Your task to perform on an android device: Open the Play Movies app and select the watchlist tab. Image 0: 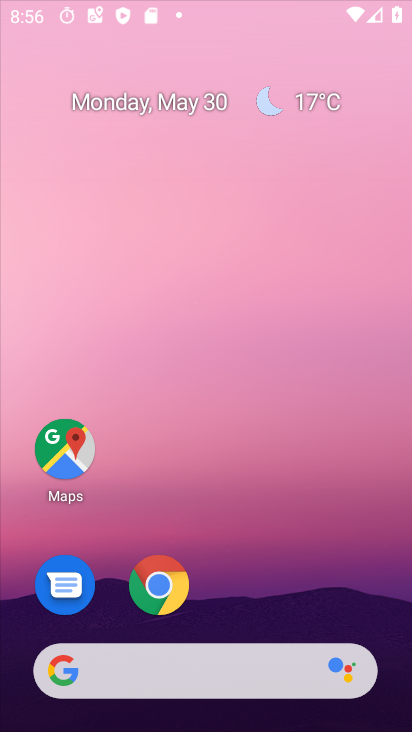
Step 0: click (214, 150)
Your task to perform on an android device: Open the Play Movies app and select the watchlist tab. Image 1: 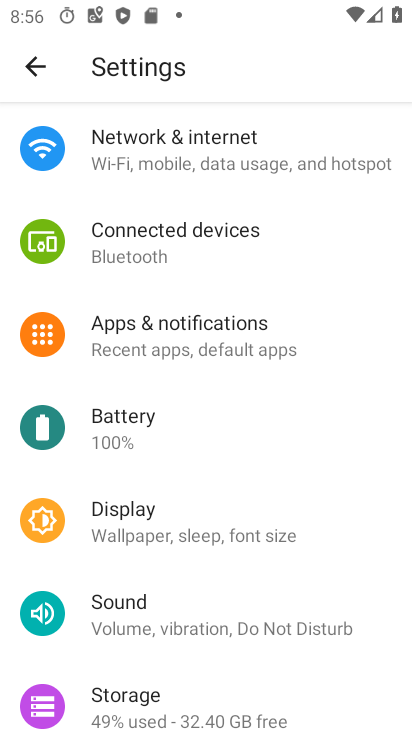
Step 1: press home button
Your task to perform on an android device: Open the Play Movies app and select the watchlist tab. Image 2: 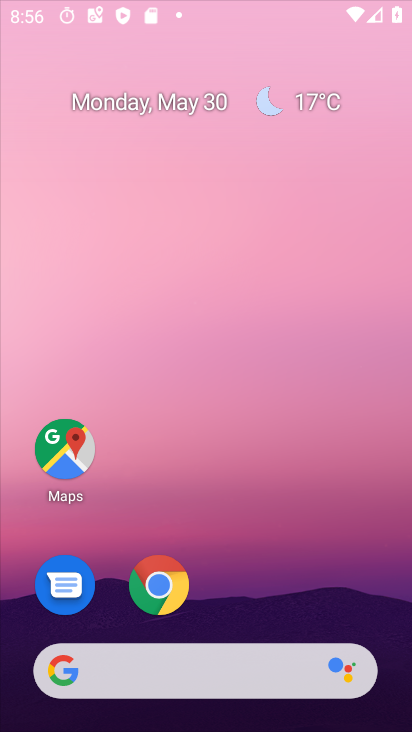
Step 2: drag from (257, 189) to (263, 155)
Your task to perform on an android device: Open the Play Movies app and select the watchlist tab. Image 3: 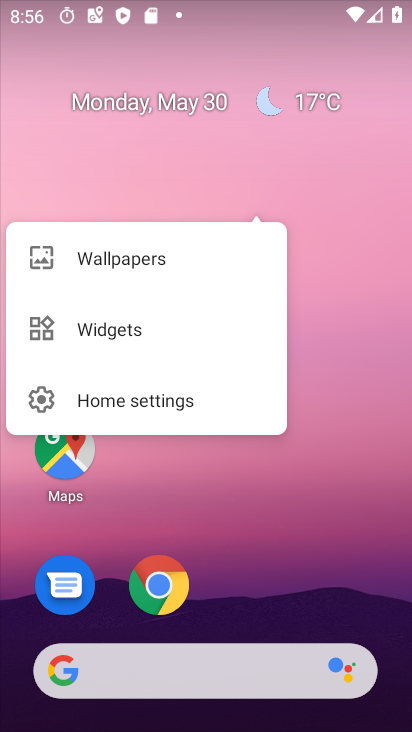
Step 3: click (319, 540)
Your task to perform on an android device: Open the Play Movies app and select the watchlist tab. Image 4: 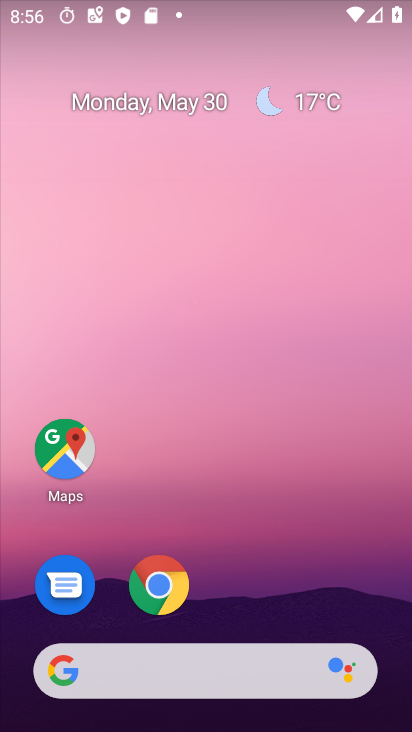
Step 4: drag from (218, 373) to (272, 166)
Your task to perform on an android device: Open the Play Movies app and select the watchlist tab. Image 5: 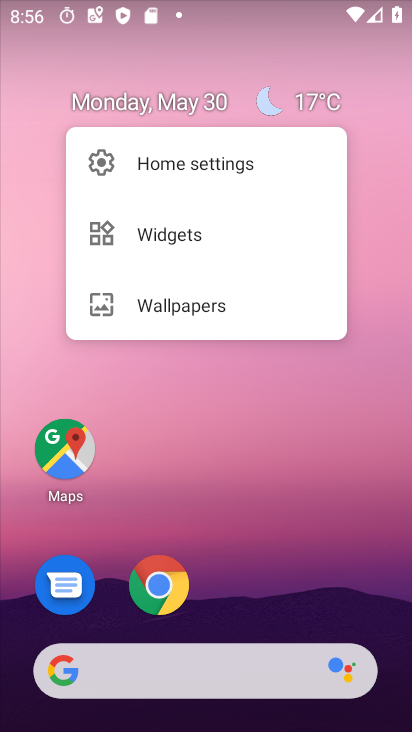
Step 5: click (267, 391)
Your task to perform on an android device: Open the Play Movies app and select the watchlist tab. Image 6: 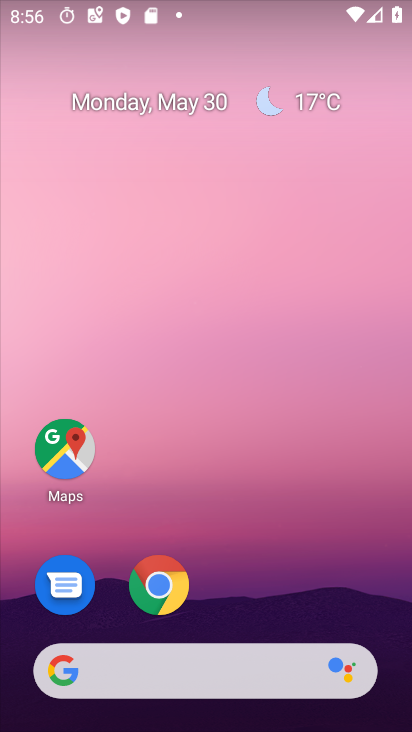
Step 6: drag from (240, 616) to (275, 124)
Your task to perform on an android device: Open the Play Movies app and select the watchlist tab. Image 7: 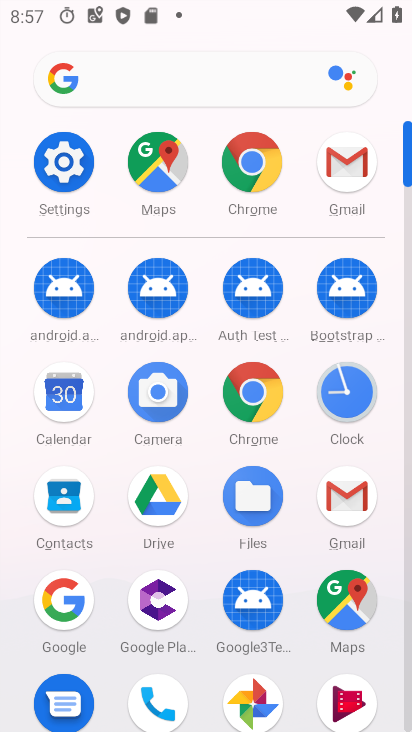
Step 7: drag from (293, 607) to (276, 200)
Your task to perform on an android device: Open the Play Movies app and select the watchlist tab. Image 8: 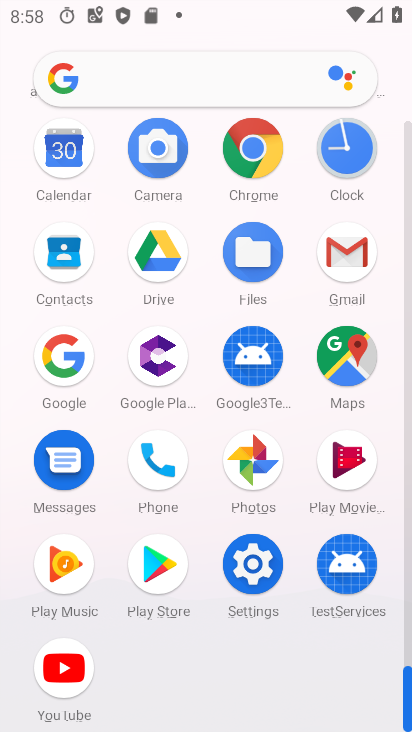
Step 8: click (346, 460)
Your task to perform on an android device: Open the Play Movies app and select the watchlist tab. Image 9: 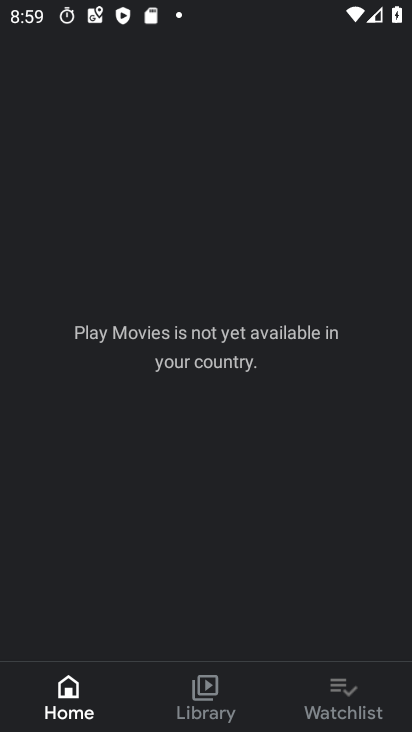
Step 9: click (330, 667)
Your task to perform on an android device: Open the Play Movies app and select the watchlist tab. Image 10: 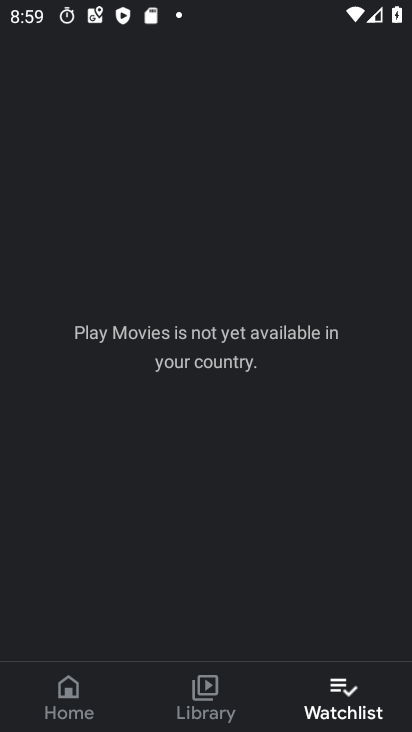
Step 10: task complete